Your task to perform on an android device: open chrome privacy settings Image 0: 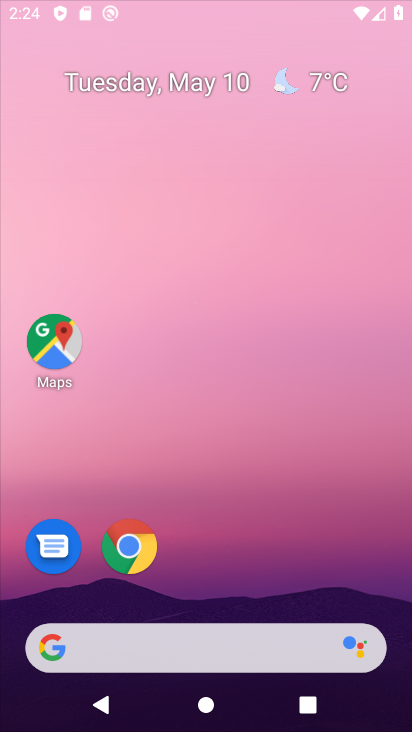
Step 0: drag from (285, 130) to (337, 131)
Your task to perform on an android device: open chrome privacy settings Image 1: 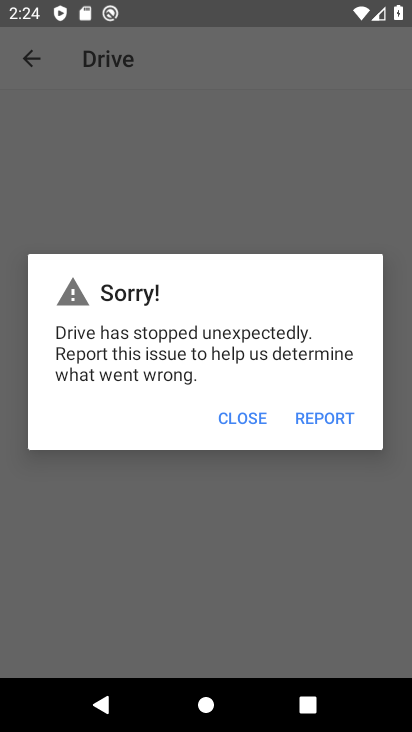
Step 1: press home button
Your task to perform on an android device: open chrome privacy settings Image 2: 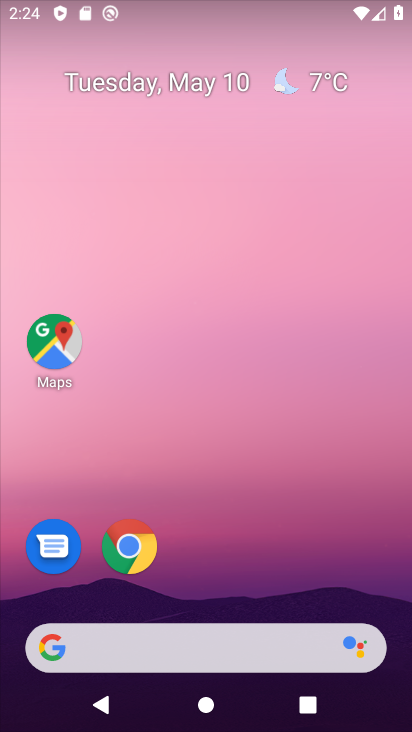
Step 2: click (138, 563)
Your task to perform on an android device: open chrome privacy settings Image 3: 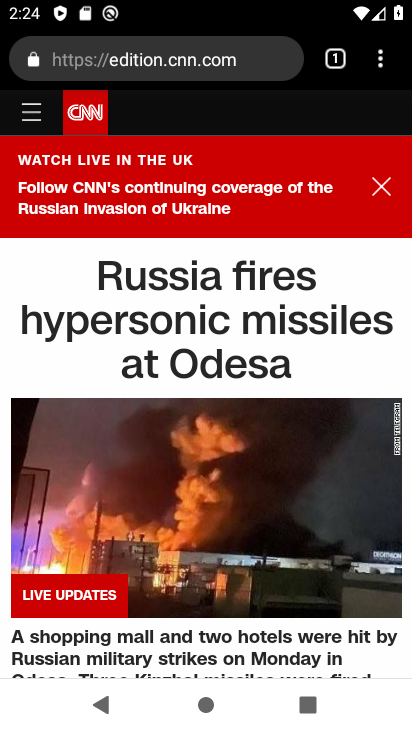
Step 3: drag from (383, 63) to (232, 579)
Your task to perform on an android device: open chrome privacy settings Image 4: 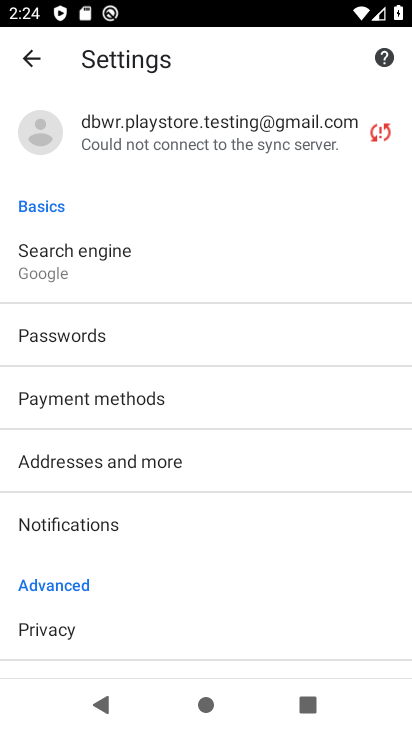
Step 4: click (57, 626)
Your task to perform on an android device: open chrome privacy settings Image 5: 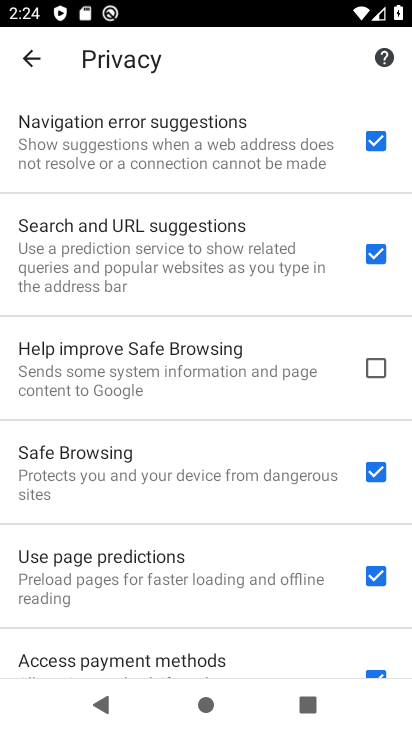
Step 5: task complete